Your task to perform on an android device: see sites visited before in the chrome app Image 0: 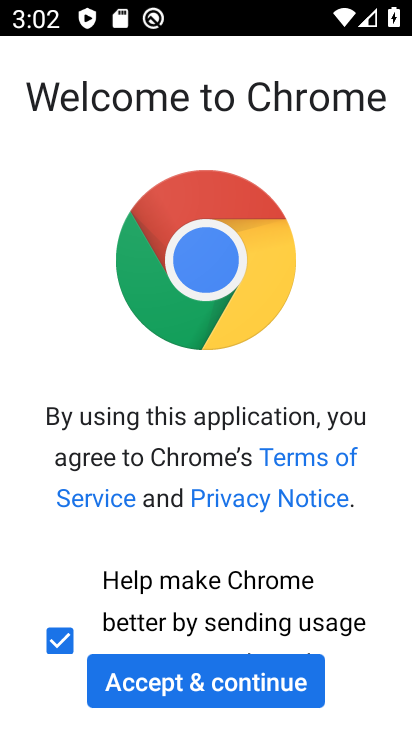
Step 0: click (199, 680)
Your task to perform on an android device: see sites visited before in the chrome app Image 1: 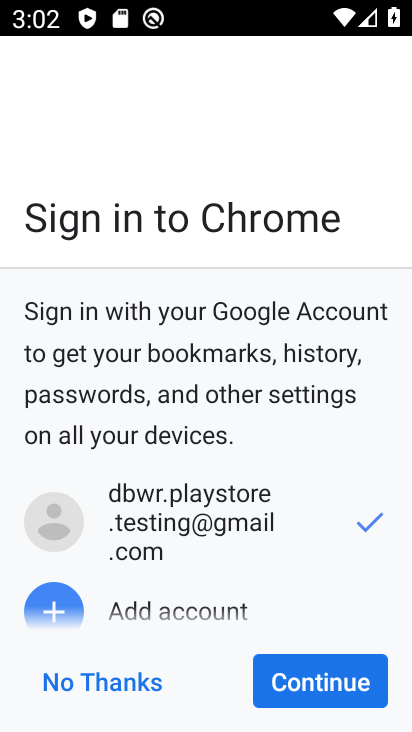
Step 1: click (319, 684)
Your task to perform on an android device: see sites visited before in the chrome app Image 2: 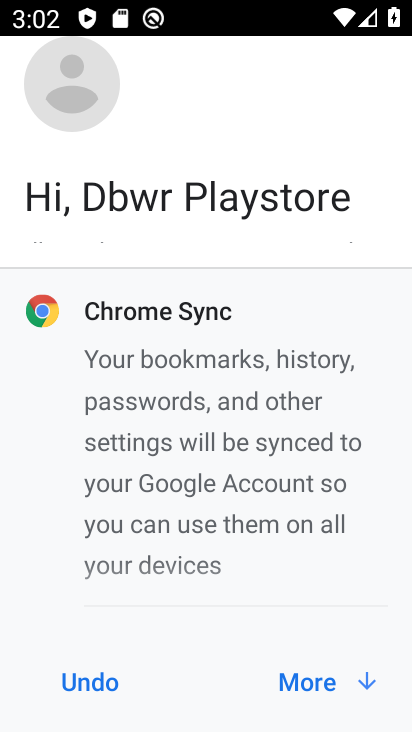
Step 2: click (309, 682)
Your task to perform on an android device: see sites visited before in the chrome app Image 3: 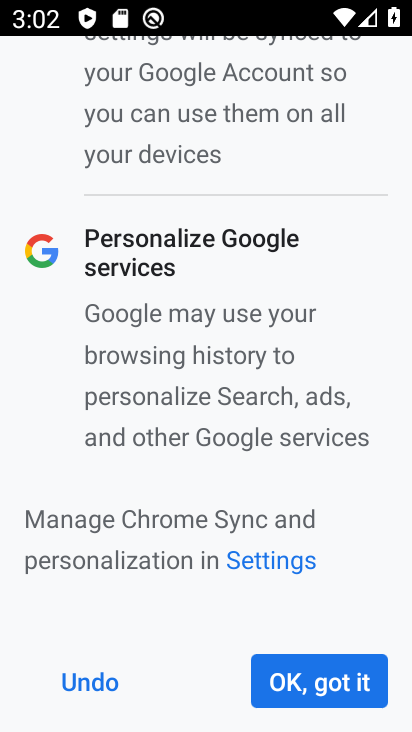
Step 3: click (309, 681)
Your task to perform on an android device: see sites visited before in the chrome app Image 4: 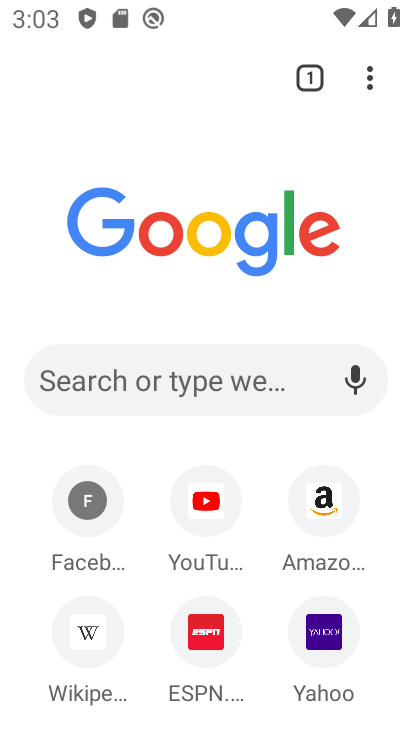
Step 4: click (370, 78)
Your task to perform on an android device: see sites visited before in the chrome app Image 5: 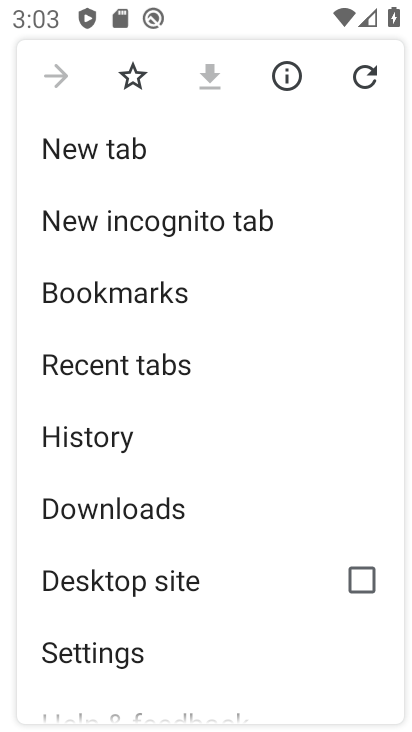
Step 5: click (109, 448)
Your task to perform on an android device: see sites visited before in the chrome app Image 6: 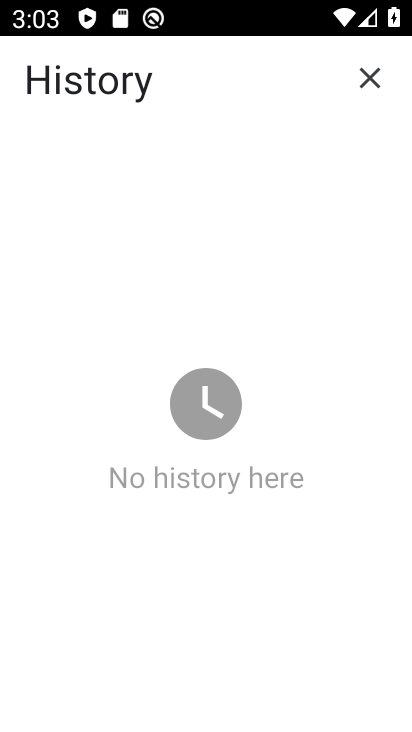
Step 6: task complete